Your task to perform on an android device: stop showing notifications on the lock screen Image 0: 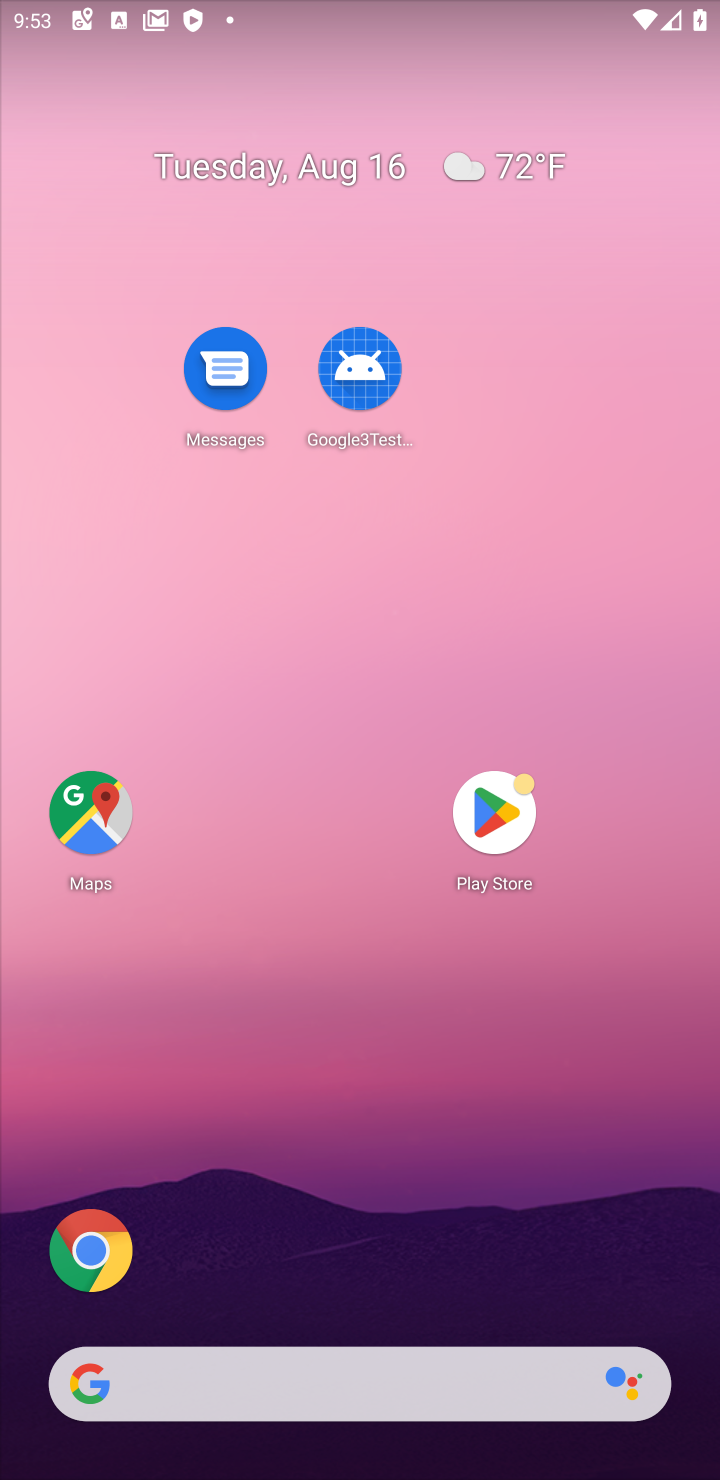
Step 0: drag from (396, 1278) to (382, 14)
Your task to perform on an android device: stop showing notifications on the lock screen Image 1: 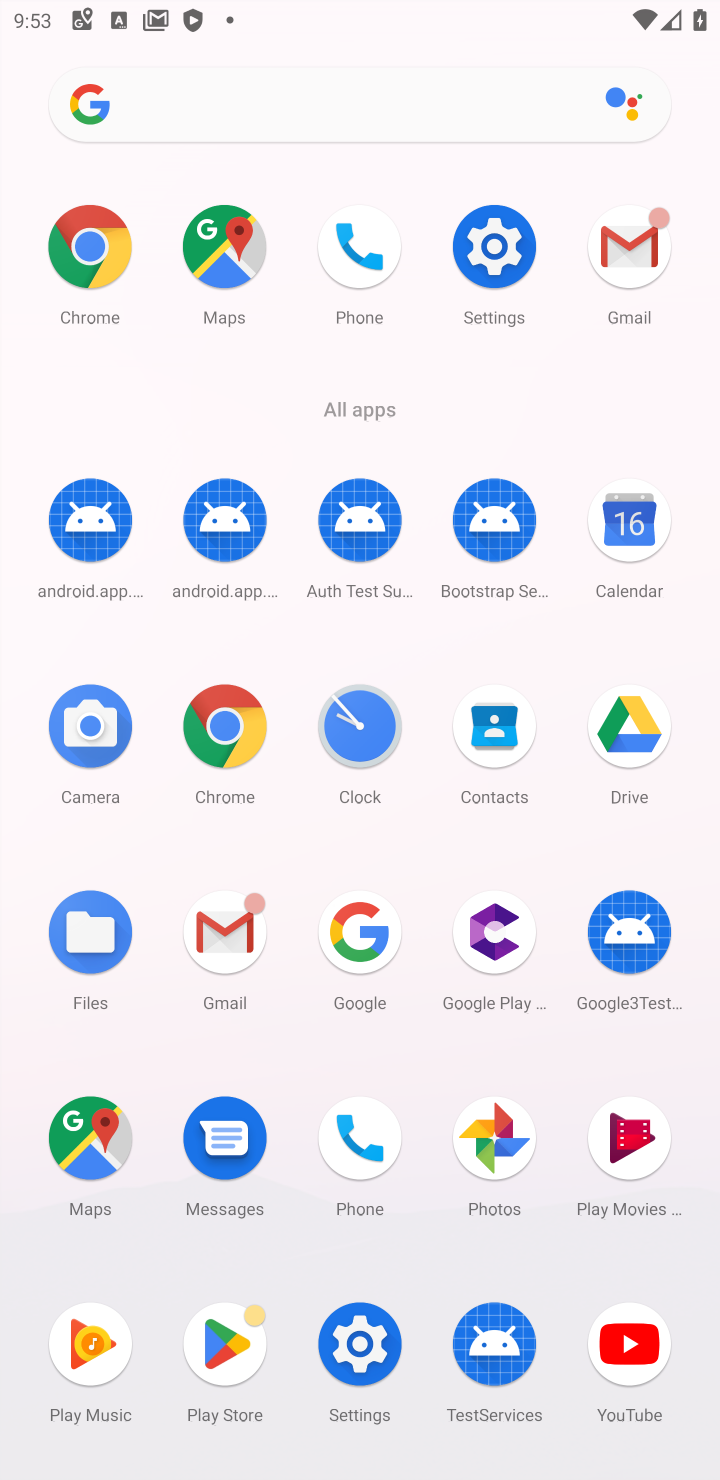
Step 1: click (476, 280)
Your task to perform on an android device: stop showing notifications on the lock screen Image 2: 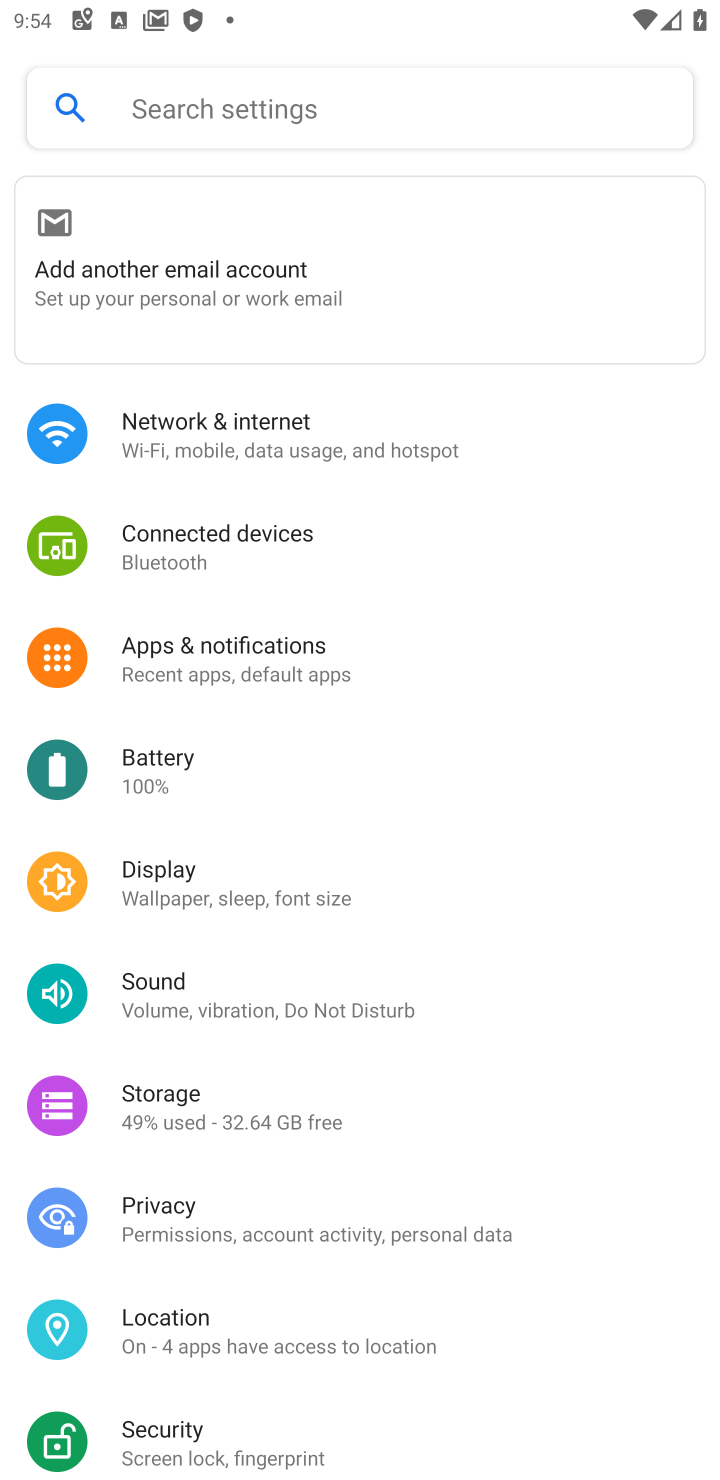
Step 2: click (282, 645)
Your task to perform on an android device: stop showing notifications on the lock screen Image 3: 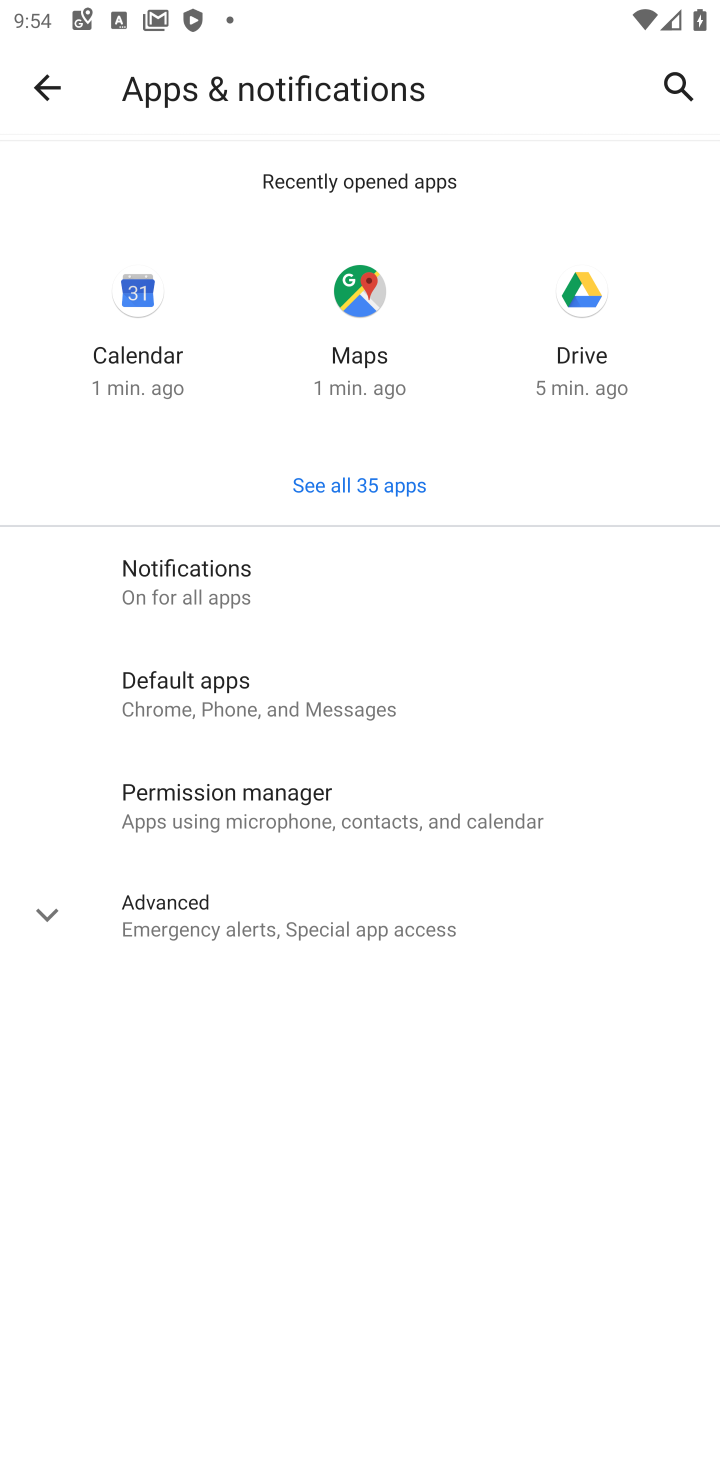
Step 3: click (287, 583)
Your task to perform on an android device: stop showing notifications on the lock screen Image 4: 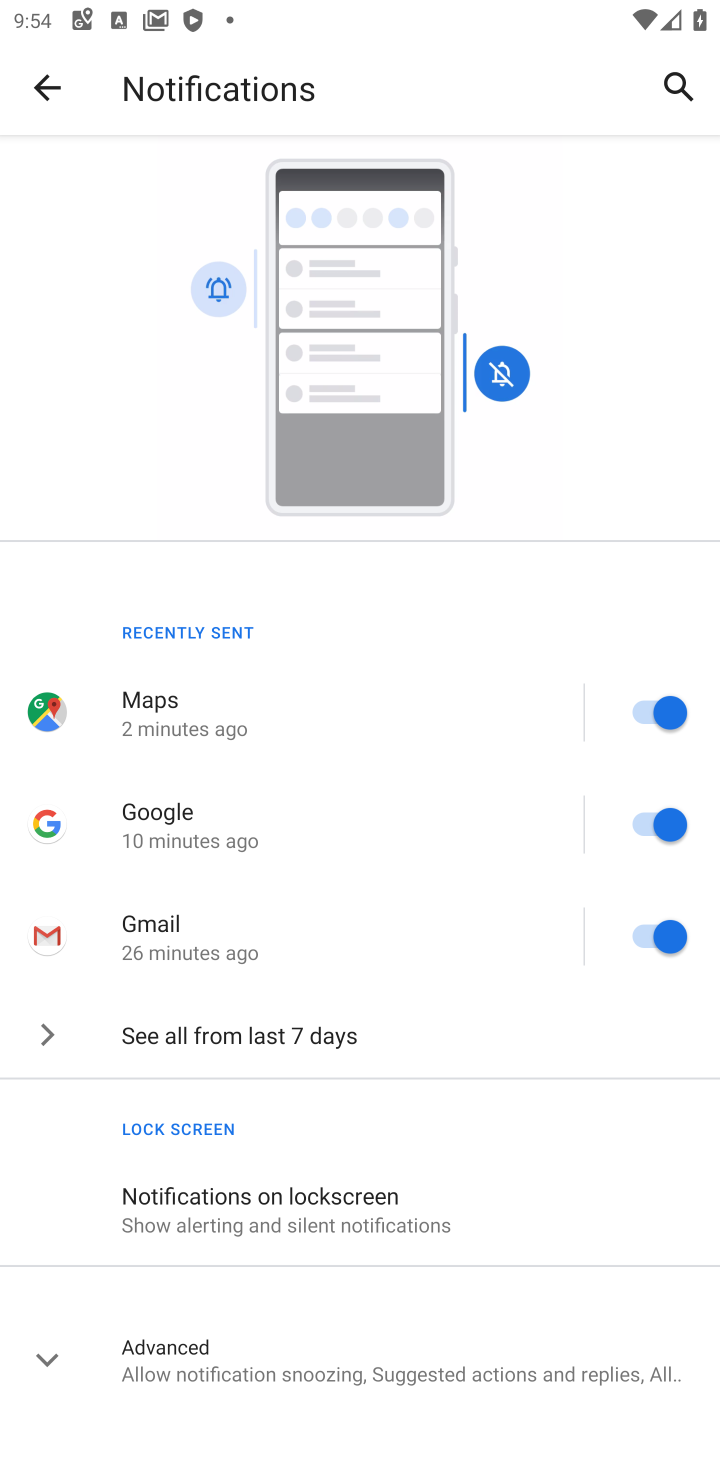
Step 4: click (373, 1235)
Your task to perform on an android device: stop showing notifications on the lock screen Image 5: 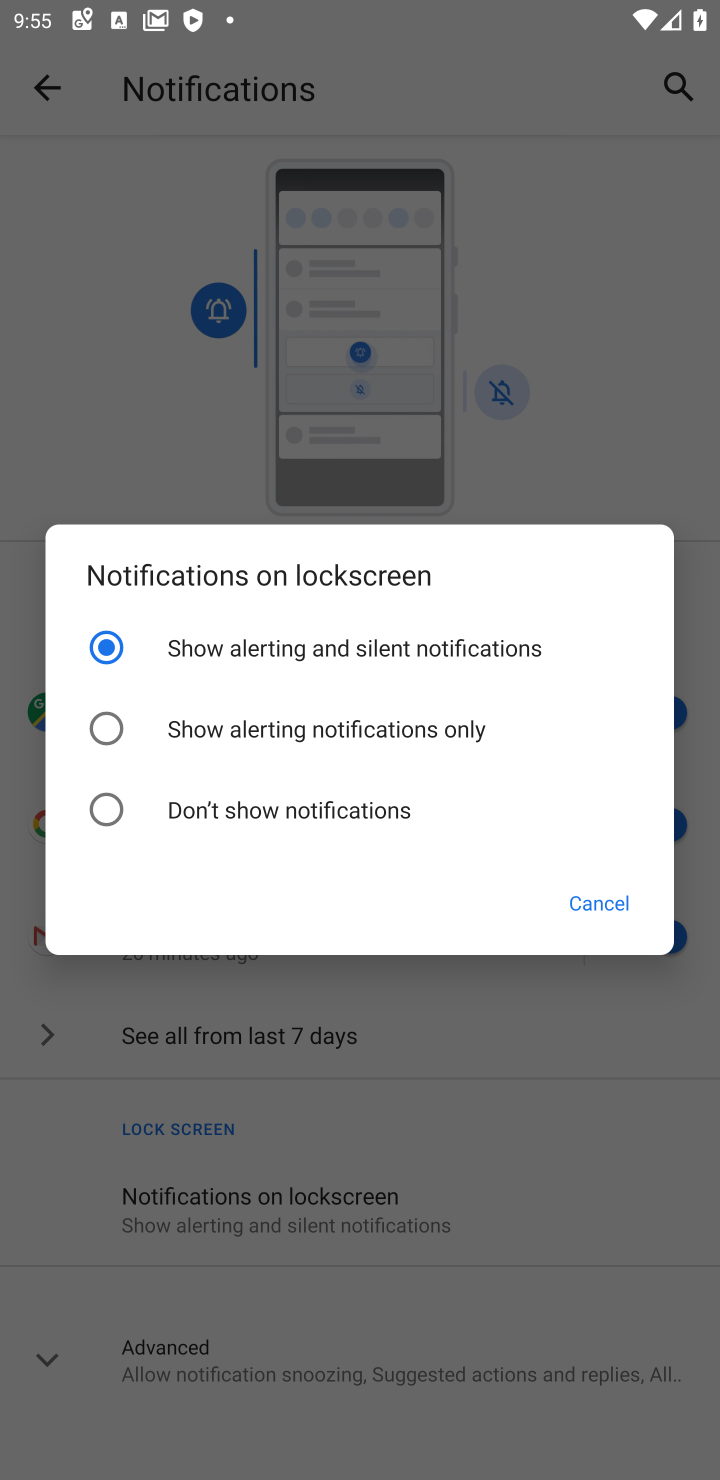
Step 5: click (302, 818)
Your task to perform on an android device: stop showing notifications on the lock screen Image 6: 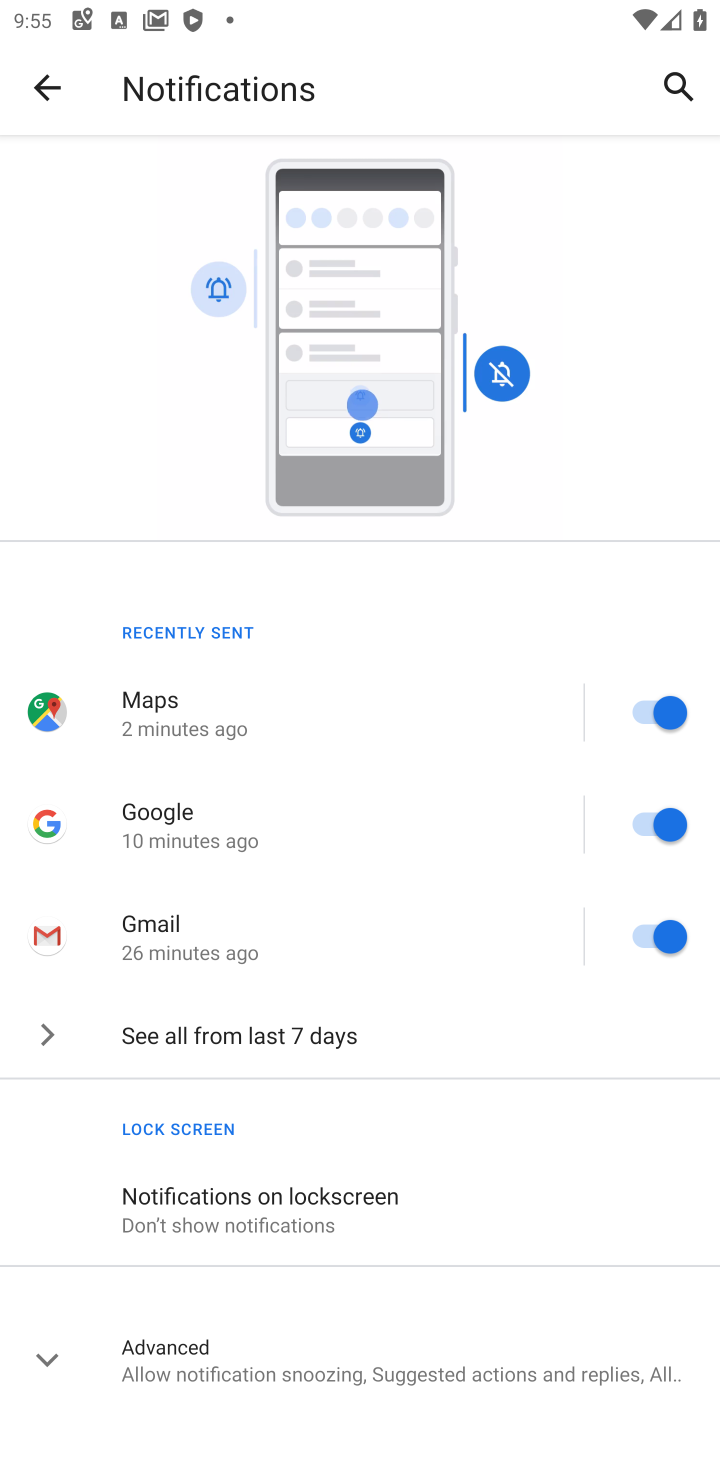
Step 6: task complete